Your task to perform on an android device: turn off priority inbox in the gmail app Image 0: 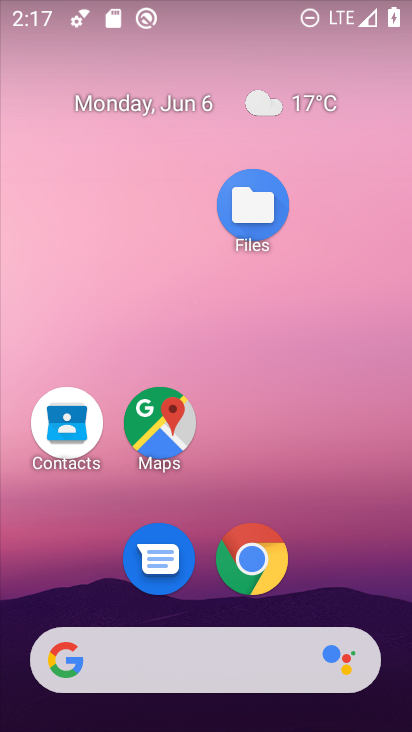
Step 0: drag from (181, 661) to (184, 187)
Your task to perform on an android device: turn off priority inbox in the gmail app Image 1: 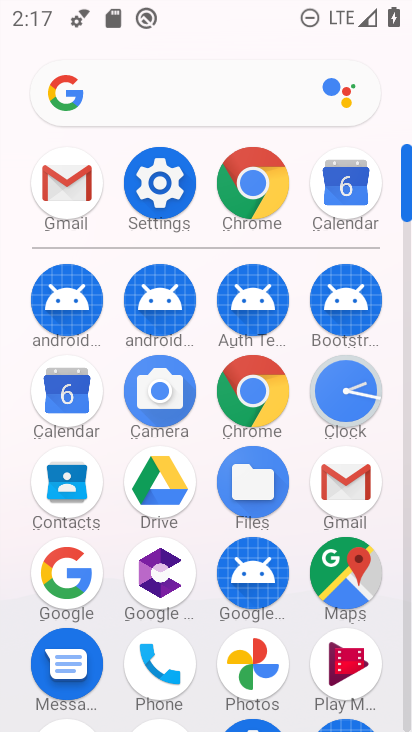
Step 1: click (325, 497)
Your task to perform on an android device: turn off priority inbox in the gmail app Image 2: 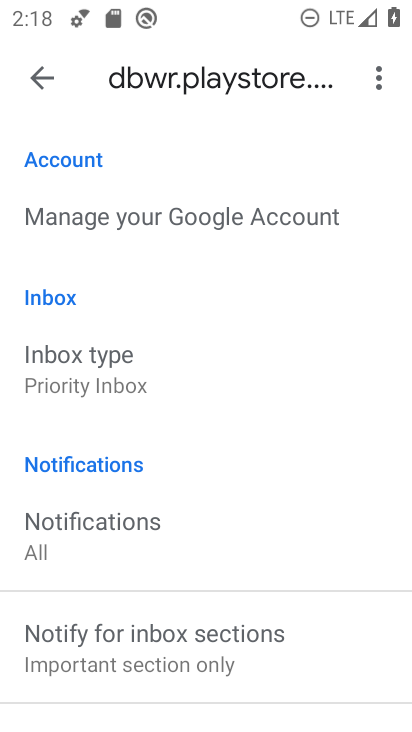
Step 2: click (146, 376)
Your task to perform on an android device: turn off priority inbox in the gmail app Image 3: 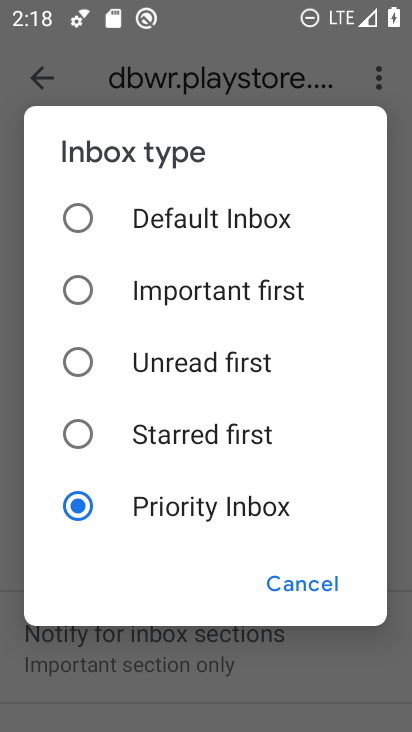
Step 3: click (153, 238)
Your task to perform on an android device: turn off priority inbox in the gmail app Image 4: 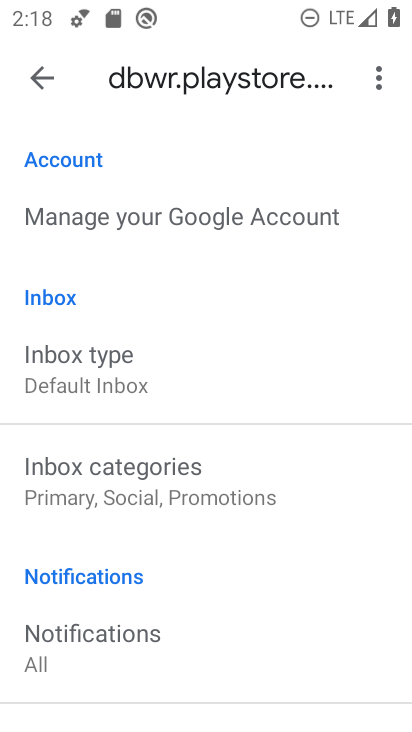
Step 4: task complete